Your task to perform on an android device: open a bookmark in the chrome app Image 0: 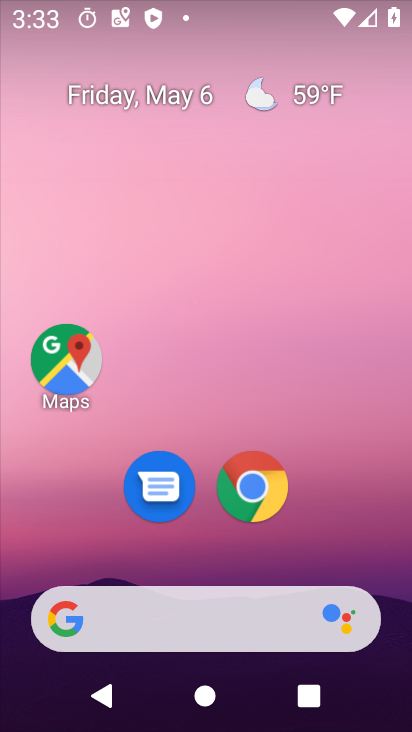
Step 0: click (242, 488)
Your task to perform on an android device: open a bookmark in the chrome app Image 1: 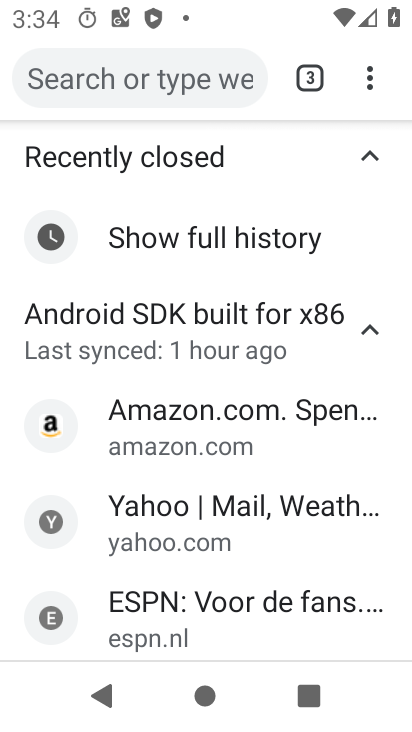
Step 1: click (366, 83)
Your task to perform on an android device: open a bookmark in the chrome app Image 2: 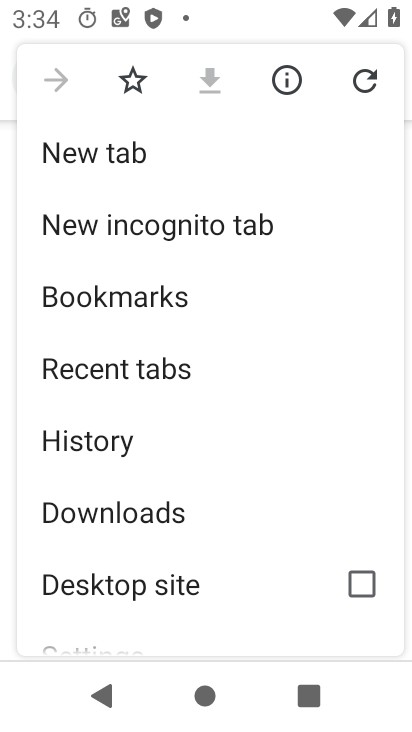
Step 2: click (142, 308)
Your task to perform on an android device: open a bookmark in the chrome app Image 3: 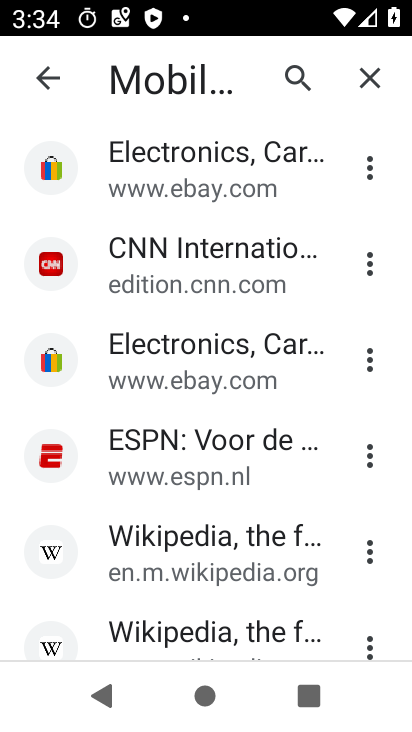
Step 3: task complete